Your task to perform on an android device: Open Reddit.com Image 0: 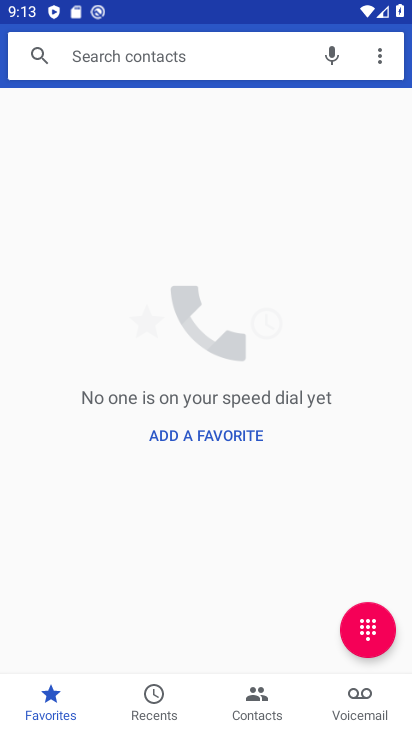
Step 0: task complete